Your task to perform on an android device: Go to Yahoo.com Image 0: 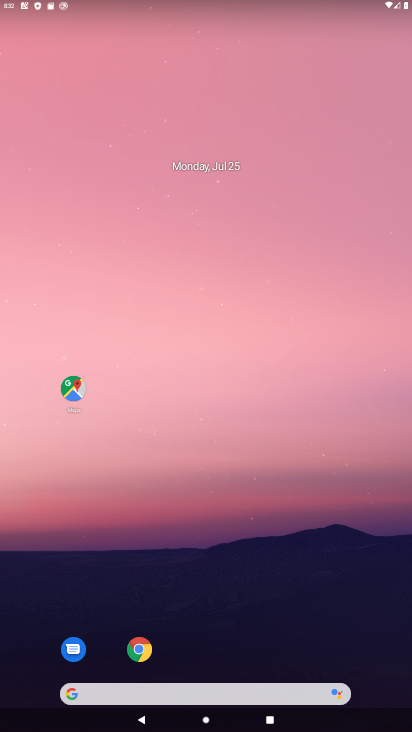
Step 0: click (133, 645)
Your task to perform on an android device: Go to Yahoo.com Image 1: 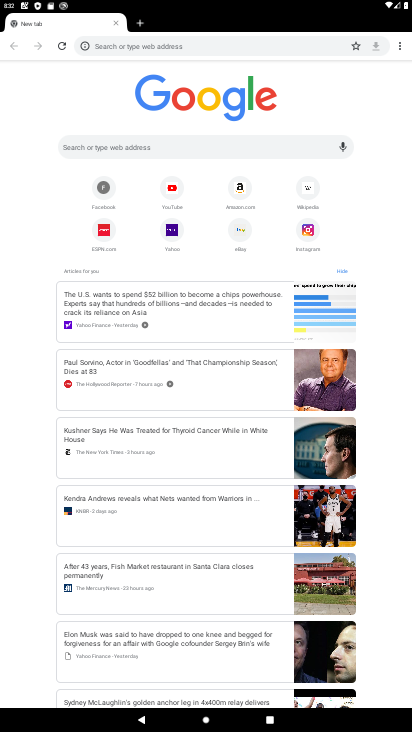
Step 1: click (175, 233)
Your task to perform on an android device: Go to Yahoo.com Image 2: 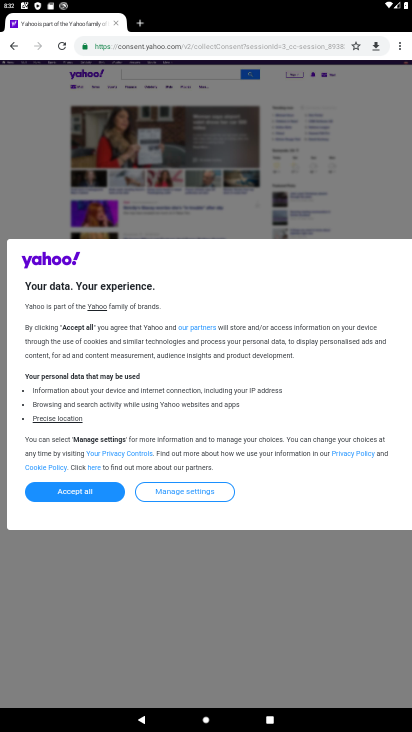
Step 2: task complete